Your task to perform on an android device: turn off notifications settings in the gmail app Image 0: 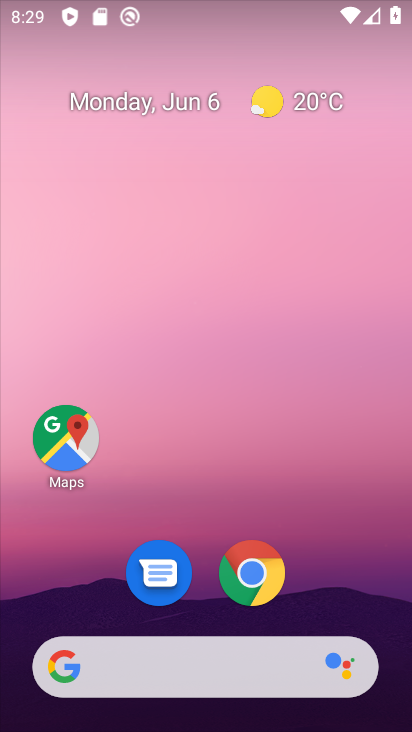
Step 0: drag from (192, 604) to (237, 68)
Your task to perform on an android device: turn off notifications settings in the gmail app Image 1: 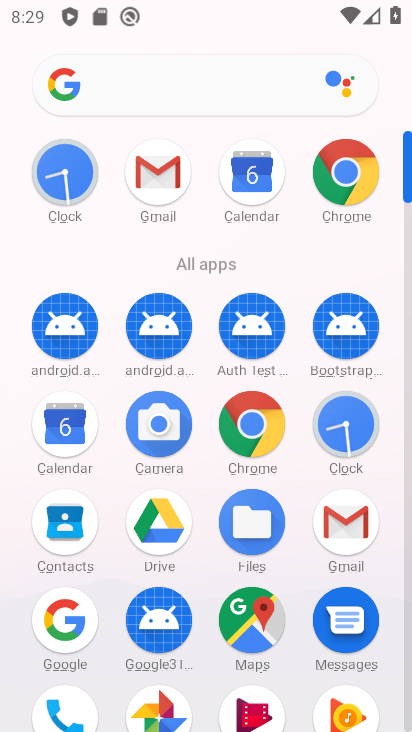
Step 1: click (161, 179)
Your task to perform on an android device: turn off notifications settings in the gmail app Image 2: 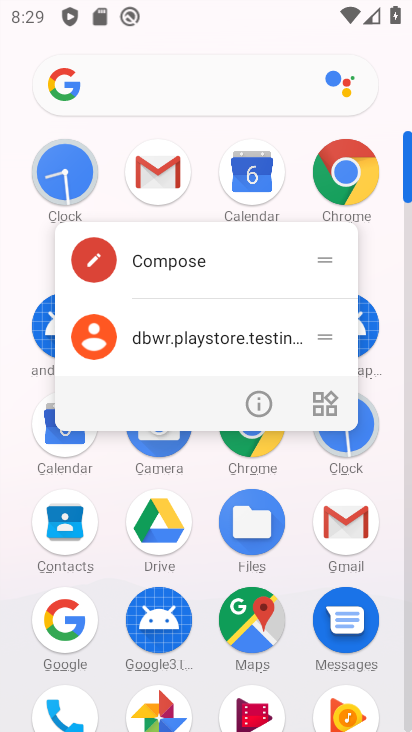
Step 2: click (259, 401)
Your task to perform on an android device: turn off notifications settings in the gmail app Image 3: 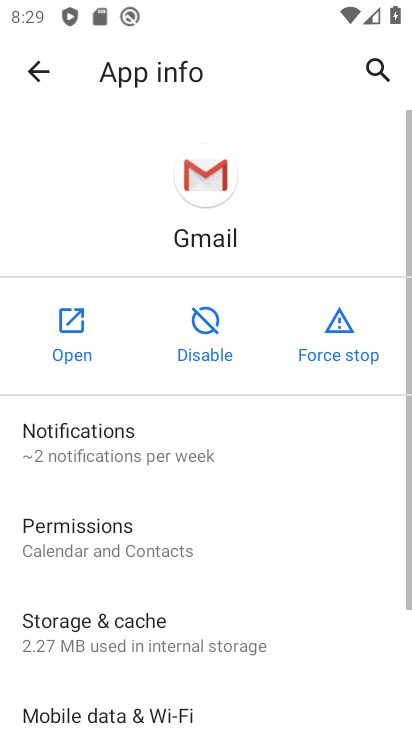
Step 3: click (93, 432)
Your task to perform on an android device: turn off notifications settings in the gmail app Image 4: 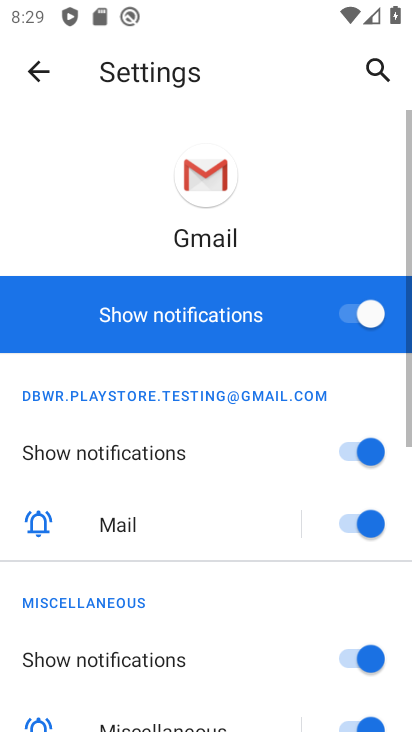
Step 4: click (354, 310)
Your task to perform on an android device: turn off notifications settings in the gmail app Image 5: 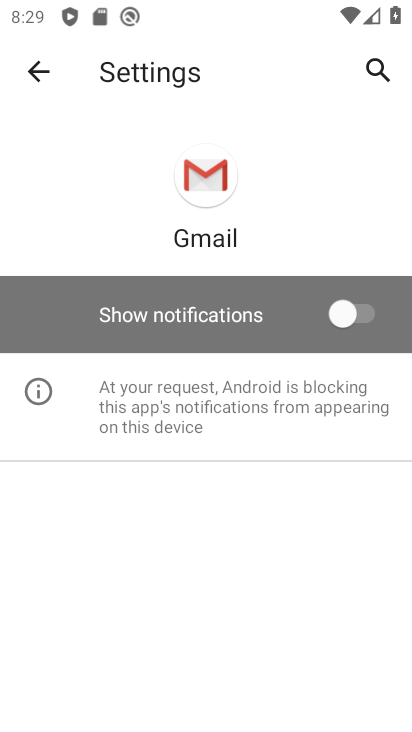
Step 5: task complete